Your task to perform on an android device: delete the emails in spam in the gmail app Image 0: 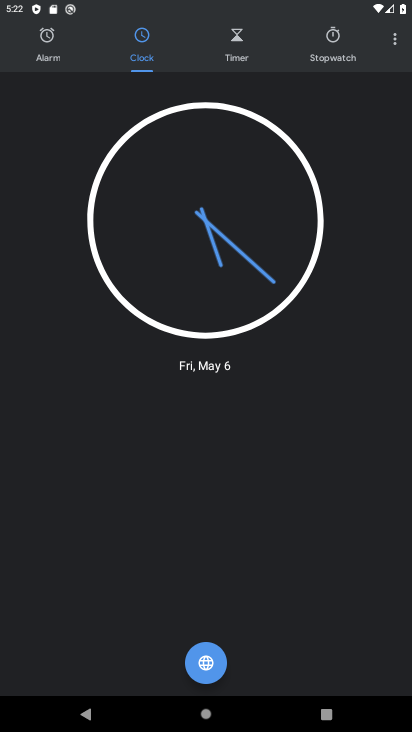
Step 0: press home button
Your task to perform on an android device: delete the emails in spam in the gmail app Image 1: 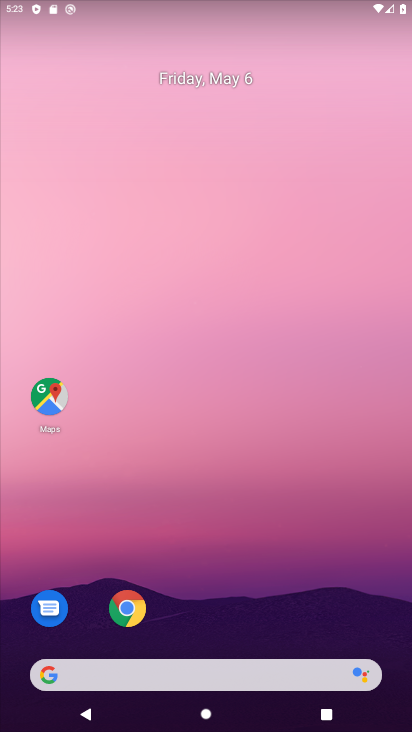
Step 1: drag from (266, 372) to (279, 4)
Your task to perform on an android device: delete the emails in spam in the gmail app Image 2: 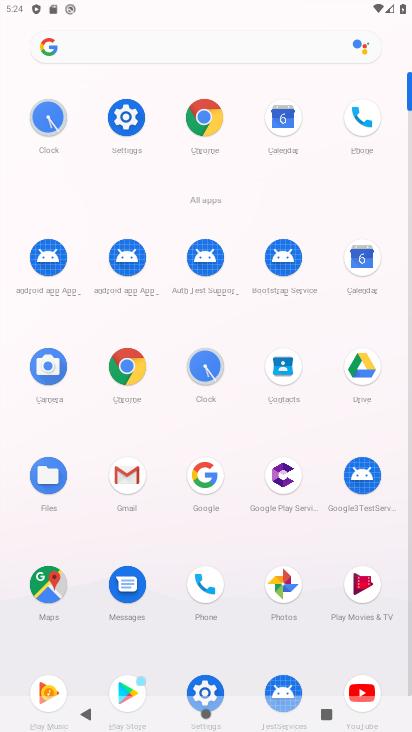
Step 2: click (139, 468)
Your task to perform on an android device: delete the emails in spam in the gmail app Image 3: 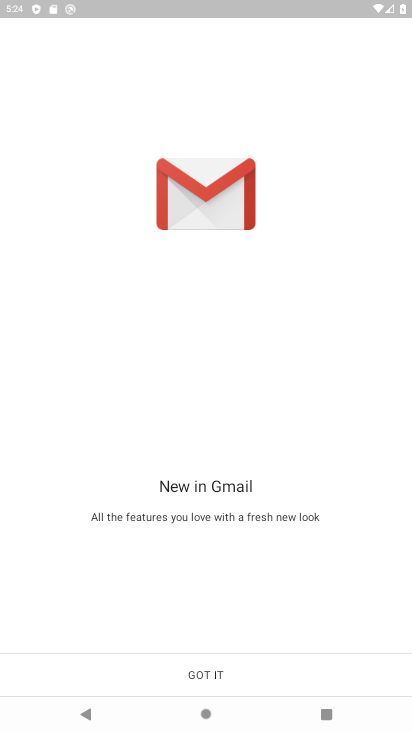
Step 3: click (193, 680)
Your task to perform on an android device: delete the emails in spam in the gmail app Image 4: 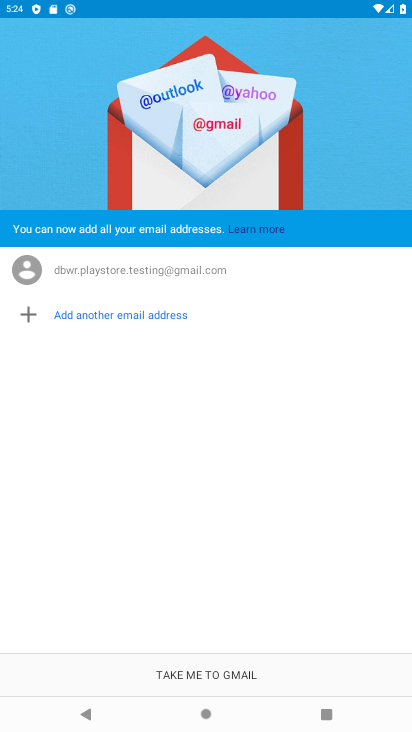
Step 4: click (193, 680)
Your task to perform on an android device: delete the emails in spam in the gmail app Image 5: 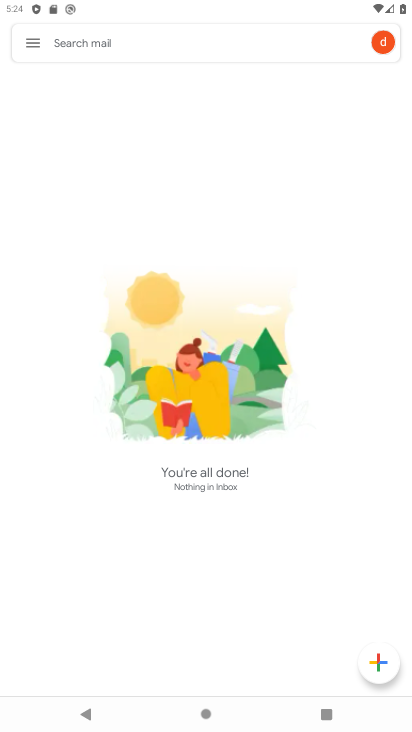
Step 5: task complete